Your task to perform on an android device: Search for a 3D printer on aliexpress. Image 0: 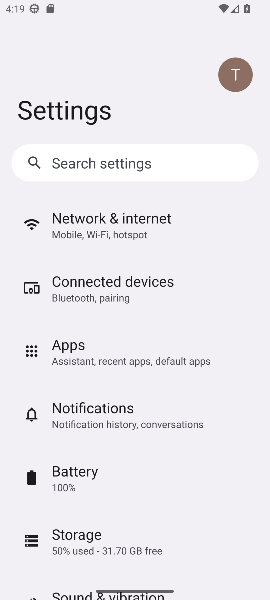
Step 0: press home button
Your task to perform on an android device: Search for a 3D printer on aliexpress. Image 1: 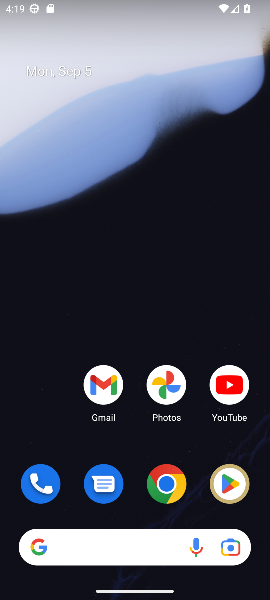
Step 1: click (166, 482)
Your task to perform on an android device: Search for a 3D printer on aliexpress. Image 2: 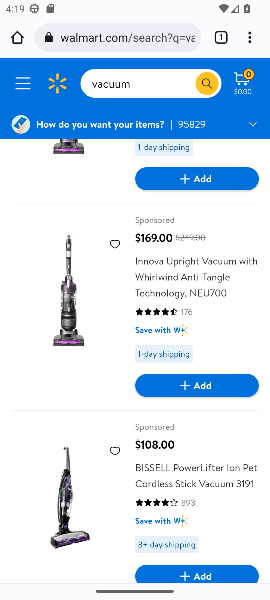
Step 2: click (165, 30)
Your task to perform on an android device: Search for a 3D printer on aliexpress. Image 3: 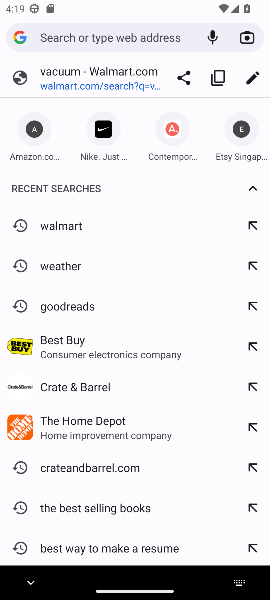
Step 3: type "aliexpress"
Your task to perform on an android device: Search for a 3D printer on aliexpress. Image 4: 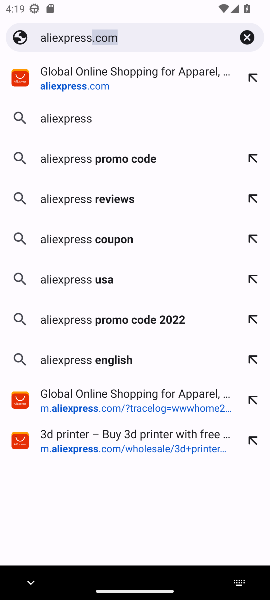
Step 4: click (59, 119)
Your task to perform on an android device: Search for a 3D printer on aliexpress. Image 5: 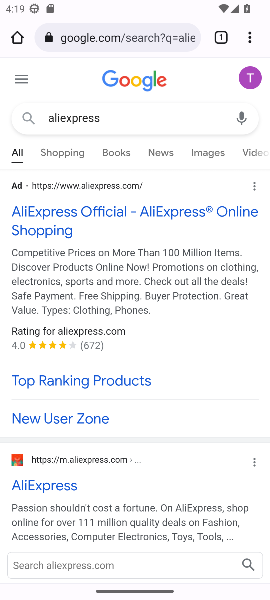
Step 5: click (58, 484)
Your task to perform on an android device: Search for a 3D printer on aliexpress. Image 6: 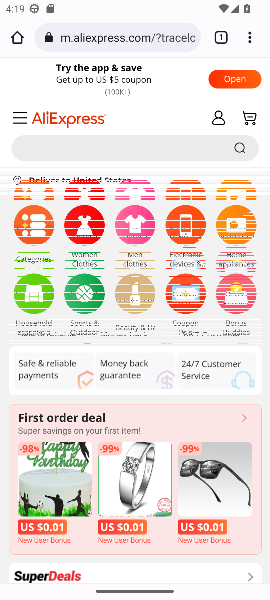
Step 6: click (102, 145)
Your task to perform on an android device: Search for a 3D printer on aliexpress. Image 7: 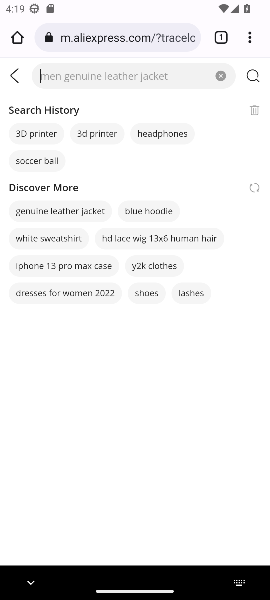
Step 7: type " 3D printer"
Your task to perform on an android device: Search for a 3D printer on aliexpress. Image 8: 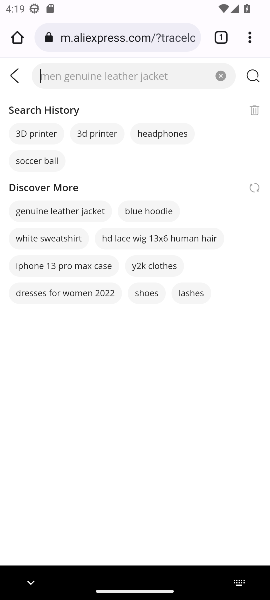
Step 8: press enter
Your task to perform on an android device: Search for a 3D printer on aliexpress. Image 9: 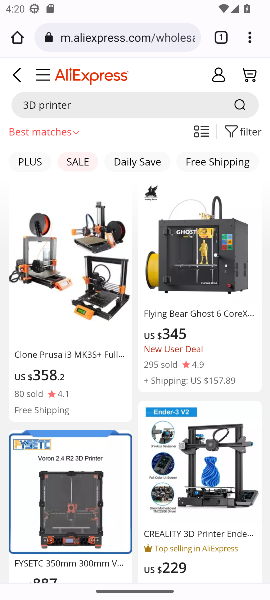
Step 9: task complete